Your task to perform on an android device: turn on the 12-hour format for clock Image 0: 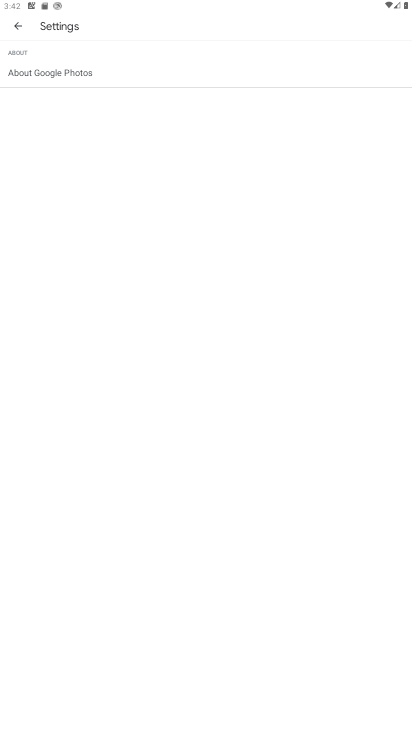
Step 0: press home button
Your task to perform on an android device: turn on the 12-hour format for clock Image 1: 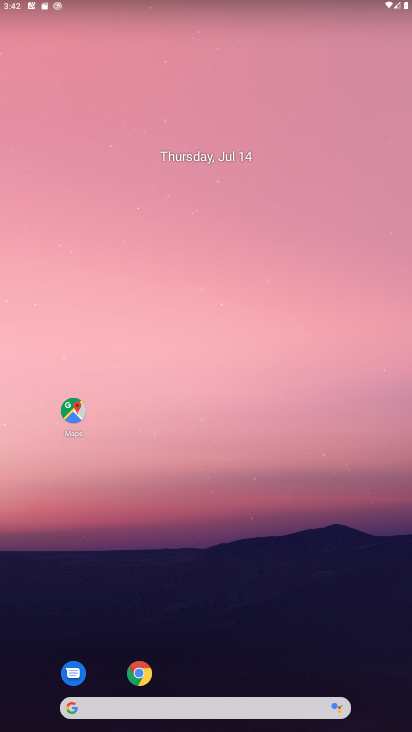
Step 1: drag from (204, 671) to (156, 36)
Your task to perform on an android device: turn on the 12-hour format for clock Image 2: 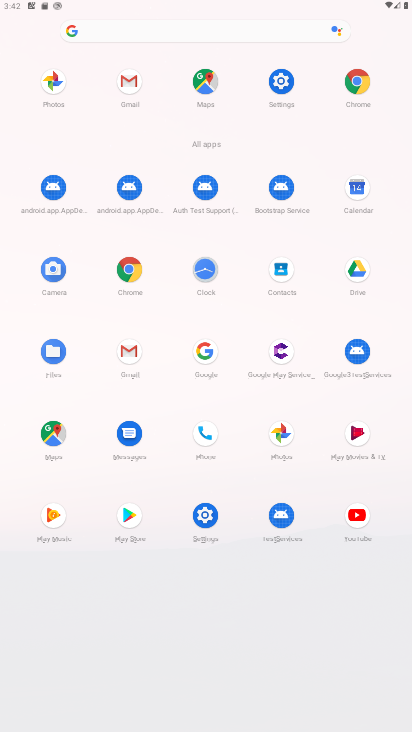
Step 2: click (203, 270)
Your task to perform on an android device: turn on the 12-hour format for clock Image 3: 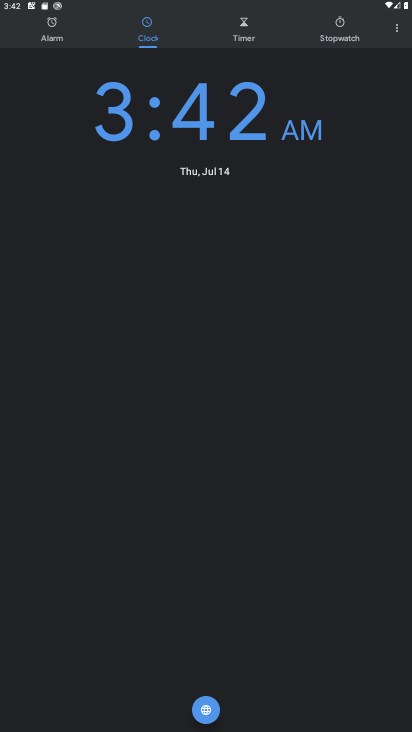
Step 3: click (401, 31)
Your task to perform on an android device: turn on the 12-hour format for clock Image 4: 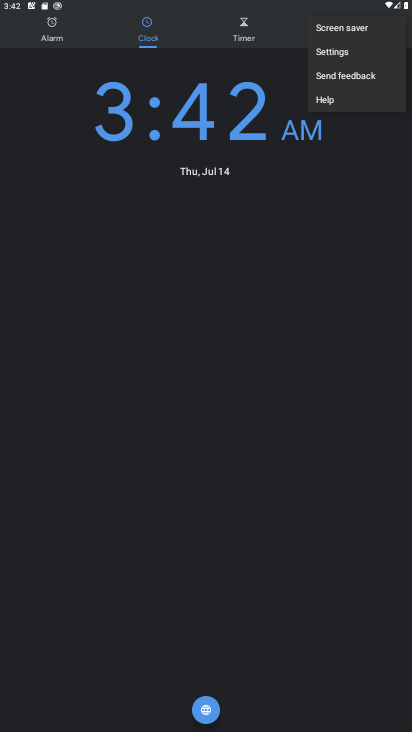
Step 4: click (352, 47)
Your task to perform on an android device: turn on the 12-hour format for clock Image 5: 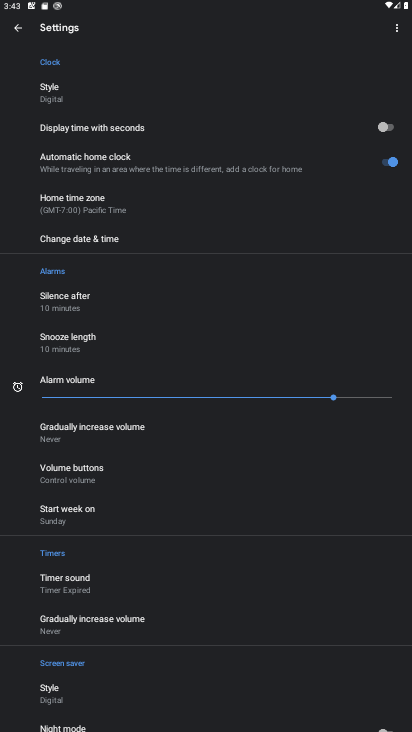
Step 5: click (127, 238)
Your task to perform on an android device: turn on the 12-hour format for clock Image 6: 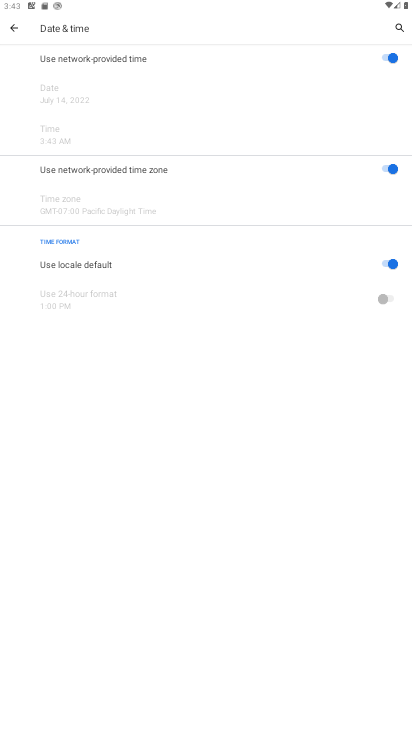
Step 6: task complete